Your task to perform on an android device: Is it going to rain tomorrow? Image 0: 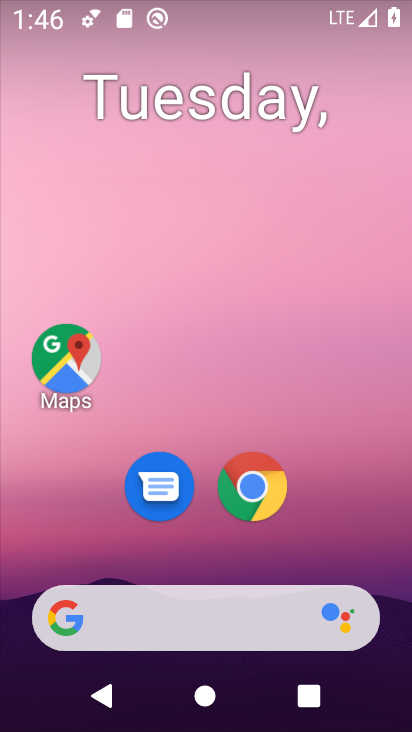
Step 0: press home button
Your task to perform on an android device: Is it going to rain tomorrow? Image 1: 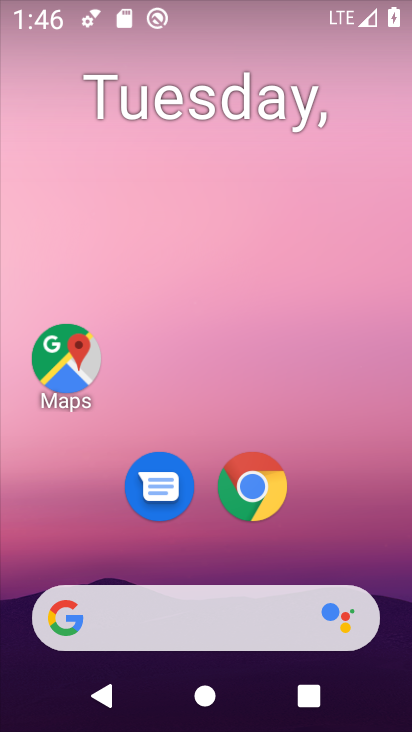
Step 1: click (170, 620)
Your task to perform on an android device: Is it going to rain tomorrow? Image 2: 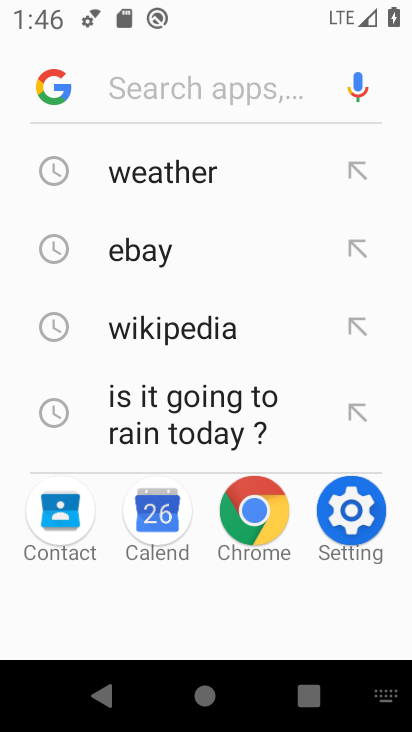
Step 2: click (199, 167)
Your task to perform on an android device: Is it going to rain tomorrow? Image 3: 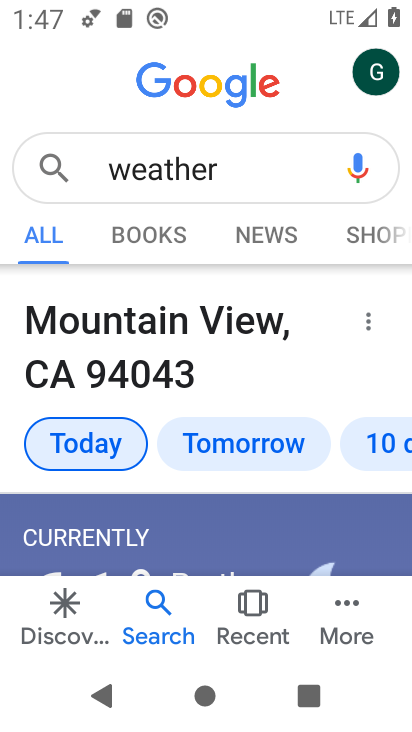
Step 3: click (250, 455)
Your task to perform on an android device: Is it going to rain tomorrow? Image 4: 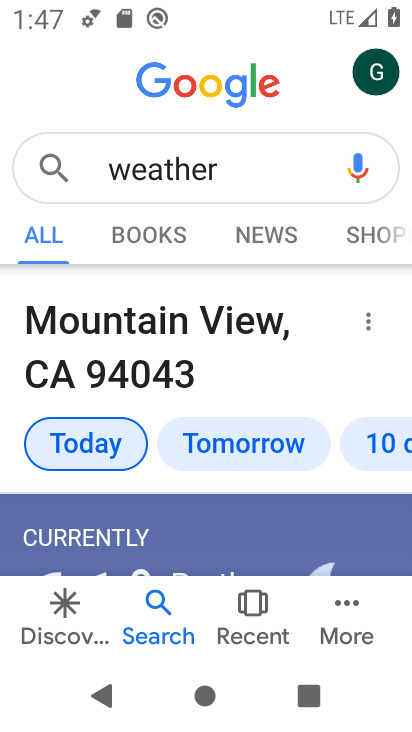
Step 4: task complete